Your task to perform on an android device: show emergency info Image 0: 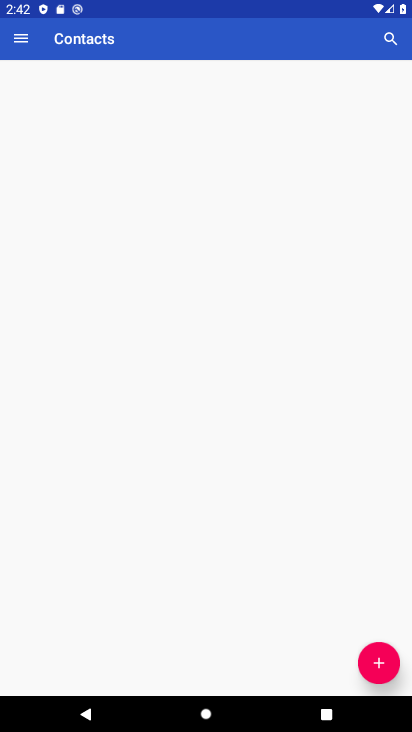
Step 0: drag from (327, 565) to (334, 137)
Your task to perform on an android device: show emergency info Image 1: 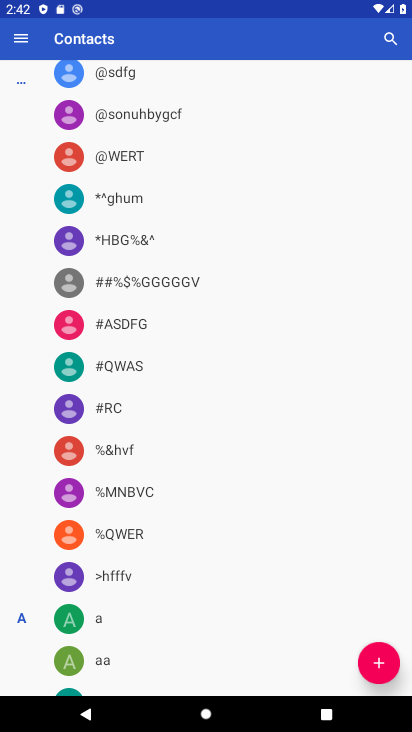
Step 1: press home button
Your task to perform on an android device: show emergency info Image 2: 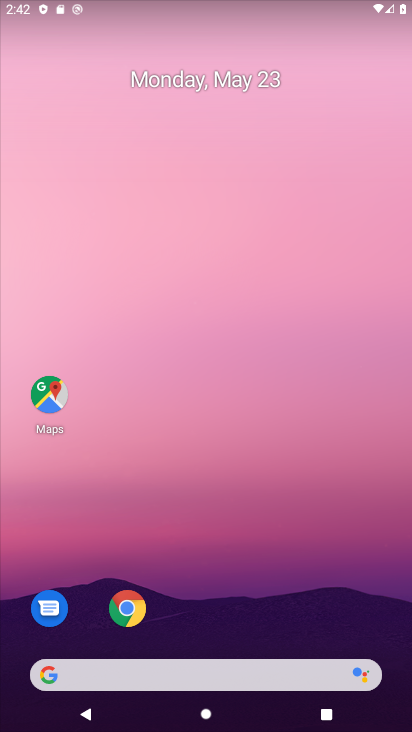
Step 2: drag from (336, 602) to (322, 193)
Your task to perform on an android device: show emergency info Image 3: 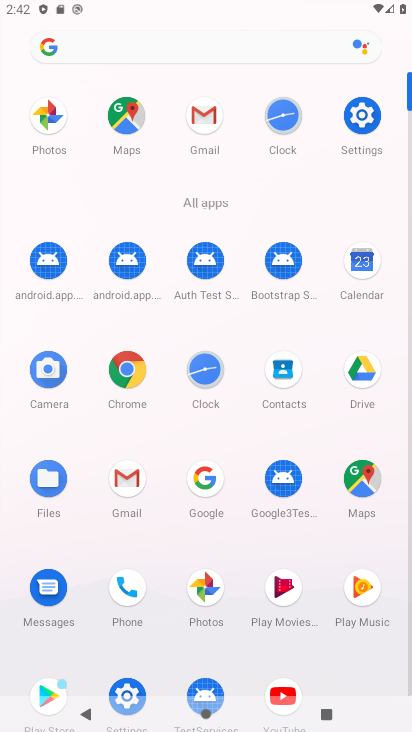
Step 3: click (137, 682)
Your task to perform on an android device: show emergency info Image 4: 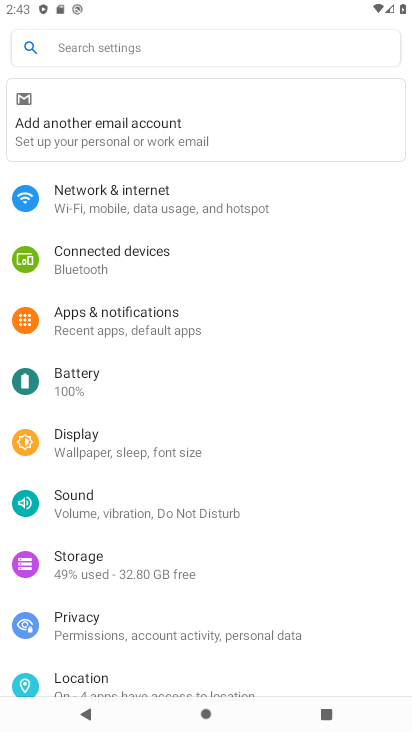
Step 4: drag from (211, 635) to (280, 297)
Your task to perform on an android device: show emergency info Image 5: 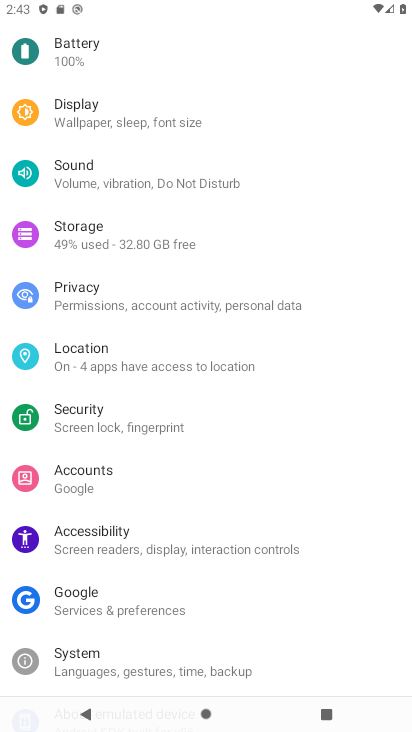
Step 5: drag from (257, 610) to (281, 240)
Your task to perform on an android device: show emergency info Image 6: 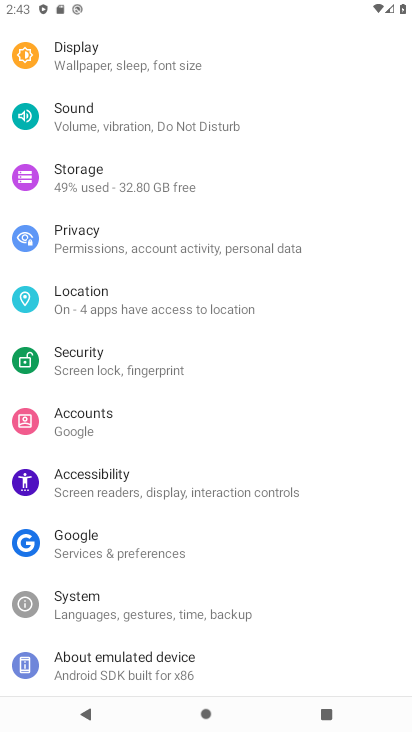
Step 6: click (215, 670)
Your task to perform on an android device: show emergency info Image 7: 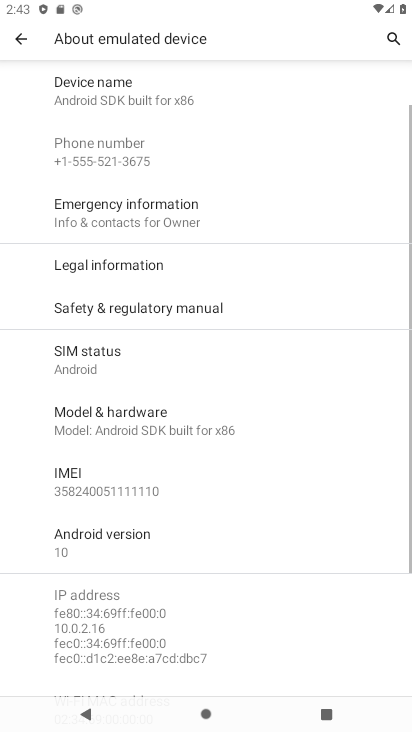
Step 7: click (181, 225)
Your task to perform on an android device: show emergency info Image 8: 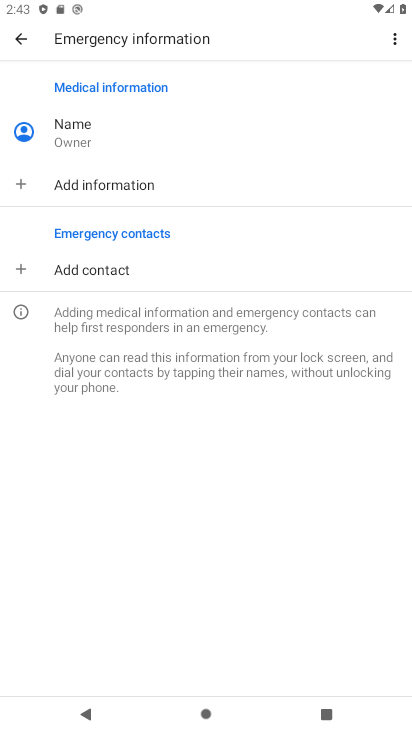
Step 8: task complete